Your task to perform on an android device: What's a good restaurant in New York? Image 0: 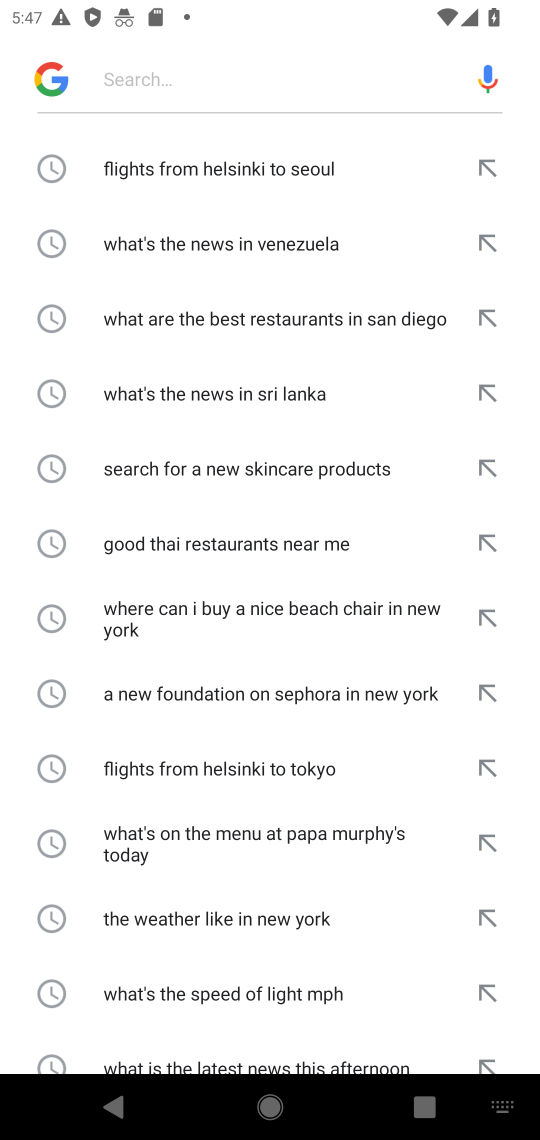
Step 0: press home button
Your task to perform on an android device: What's a good restaurant in New York? Image 1: 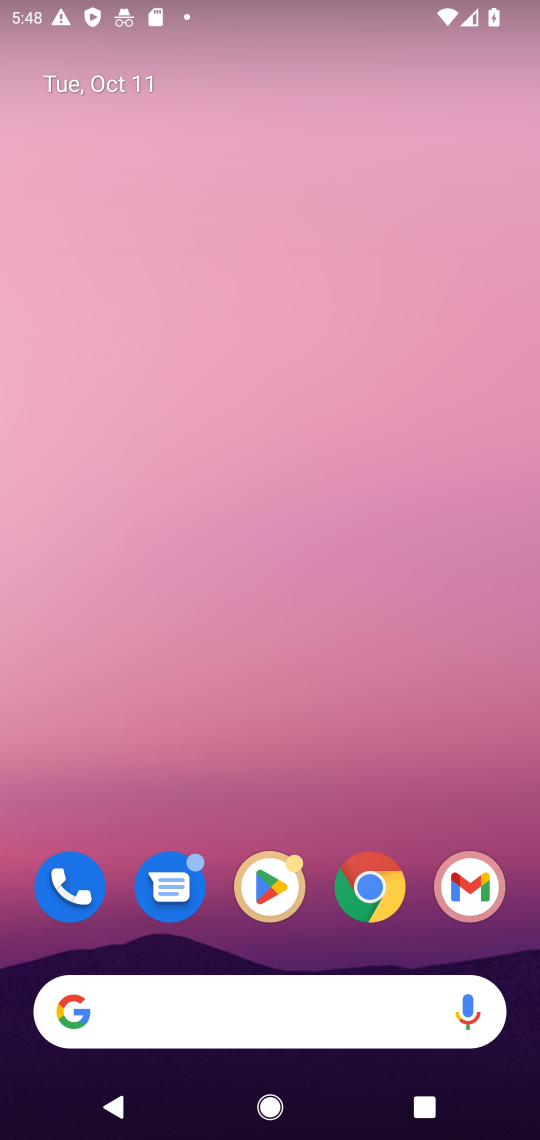
Step 1: click (249, 1018)
Your task to perform on an android device: What's a good restaurant in New York? Image 2: 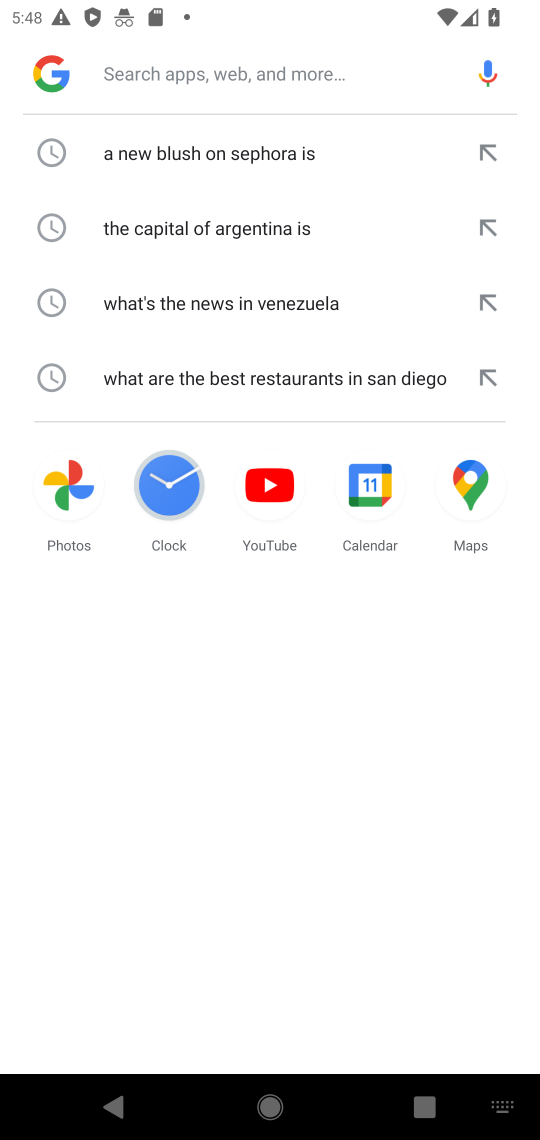
Step 2: type "What's a good restaurant in New York?"
Your task to perform on an android device: What's a good restaurant in New York? Image 3: 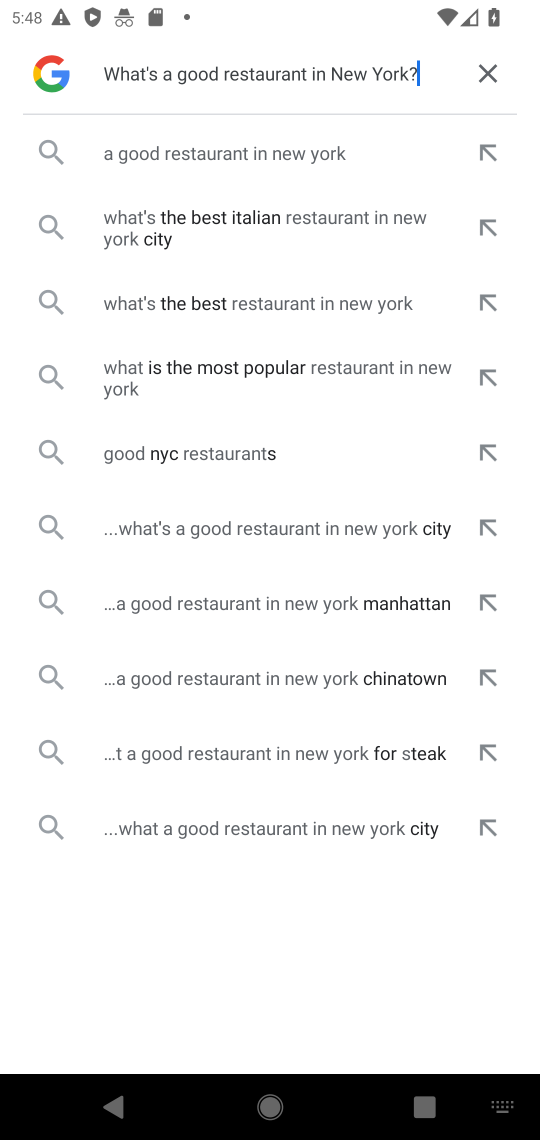
Step 3: click (319, 158)
Your task to perform on an android device: What's a good restaurant in New York? Image 4: 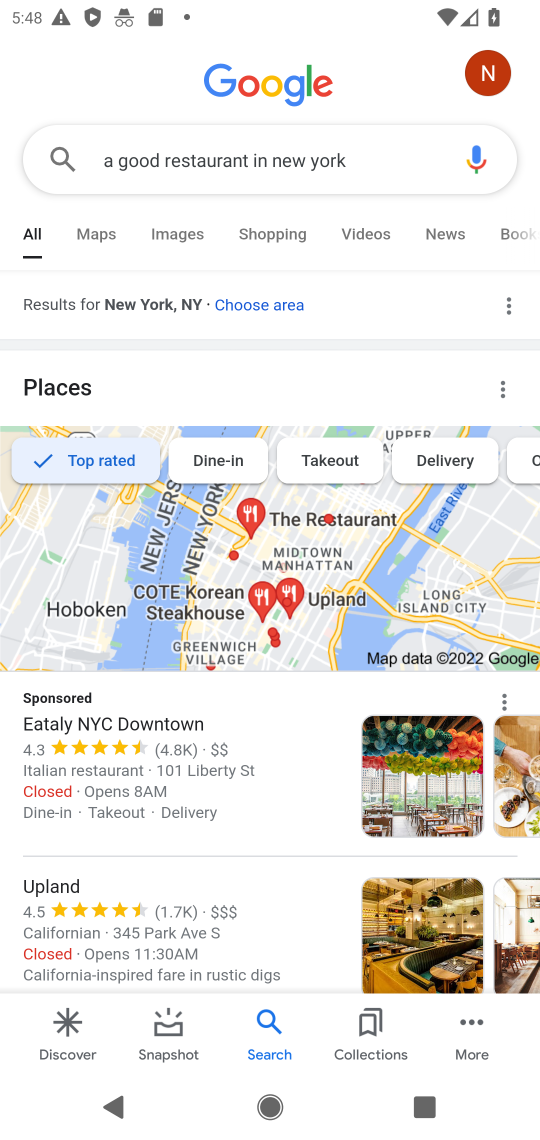
Step 4: task complete